Your task to perform on an android device: turn off translation in the chrome app Image 0: 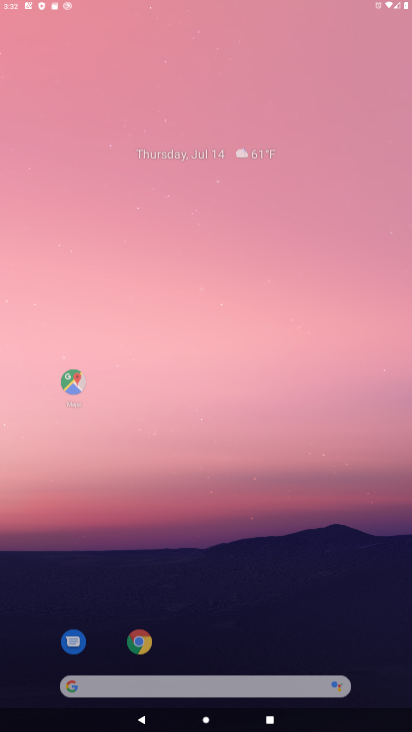
Step 0: click (159, 237)
Your task to perform on an android device: turn off translation in the chrome app Image 1: 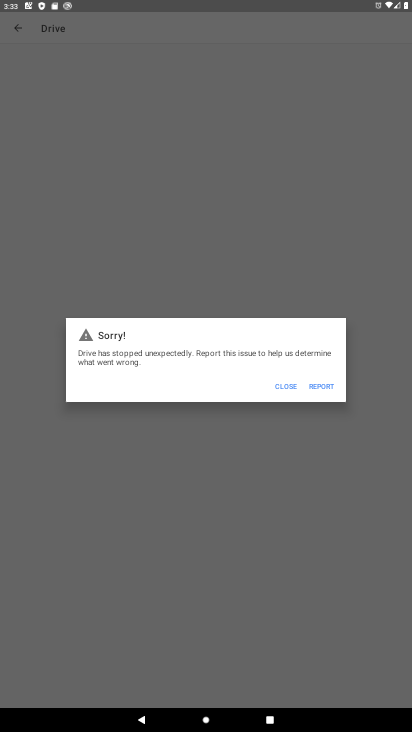
Step 1: press home button
Your task to perform on an android device: turn off translation in the chrome app Image 2: 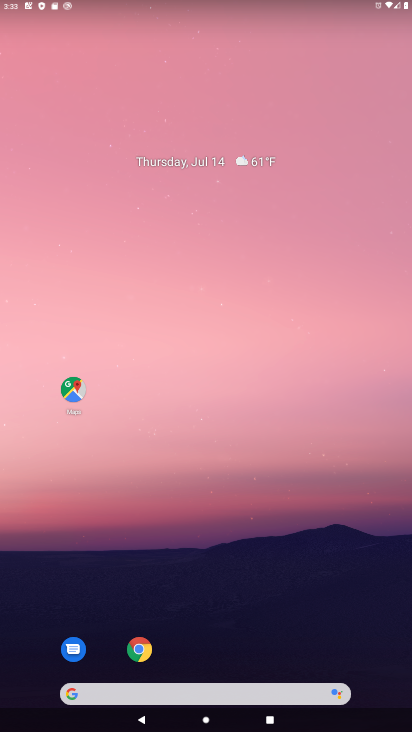
Step 2: click (139, 642)
Your task to perform on an android device: turn off translation in the chrome app Image 3: 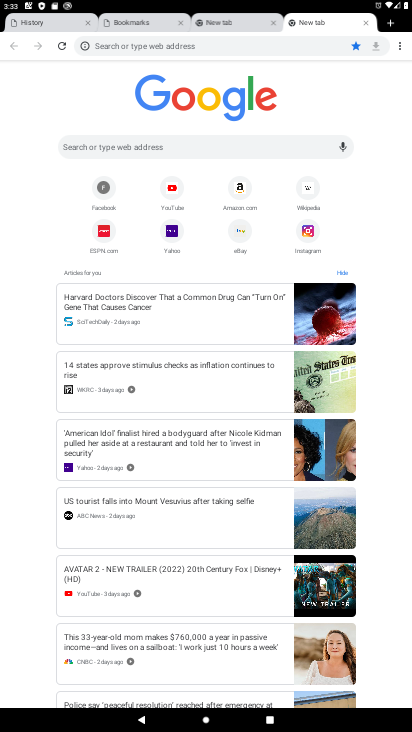
Step 3: drag from (396, 44) to (308, 206)
Your task to perform on an android device: turn off translation in the chrome app Image 4: 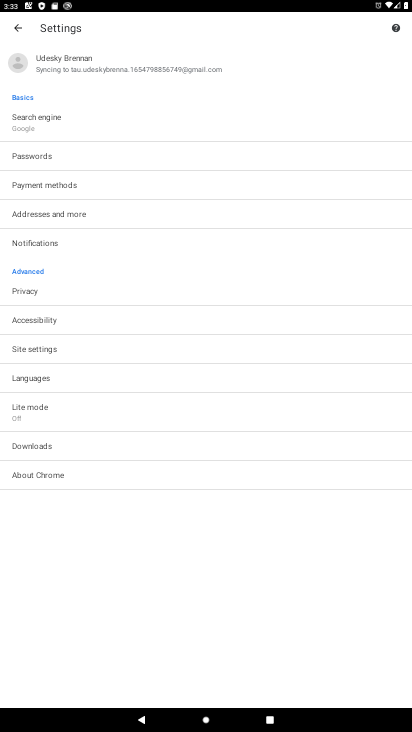
Step 4: click (43, 386)
Your task to perform on an android device: turn off translation in the chrome app Image 5: 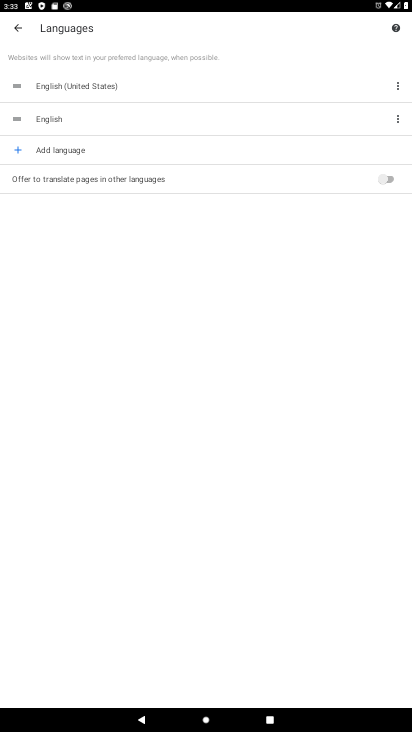
Step 5: task complete